Your task to perform on an android device: Clear the cart on costco. Add macbook pro 15 inch to the cart on costco Image 0: 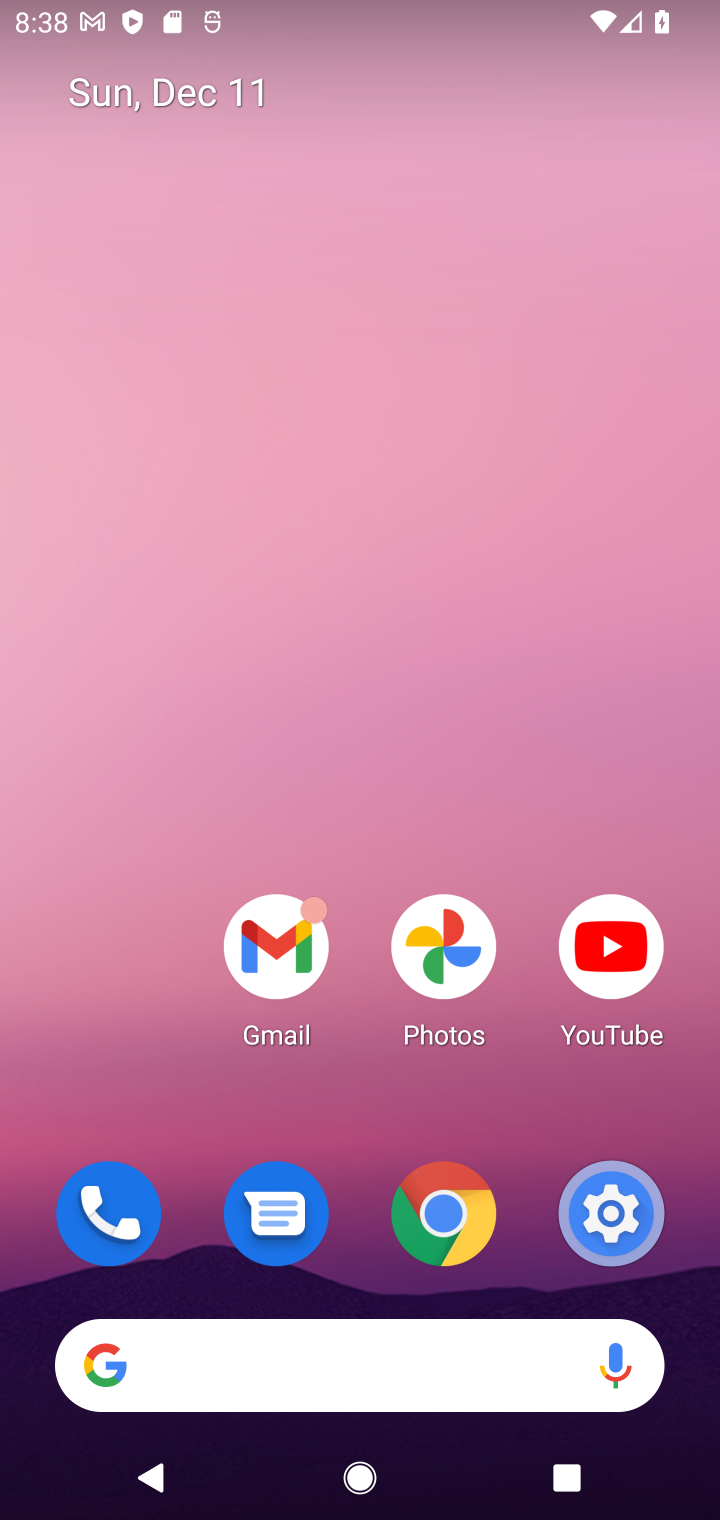
Step 0: click (407, 1352)
Your task to perform on an android device: Clear the cart on costco. Add macbook pro 15 inch to the cart on costco Image 1: 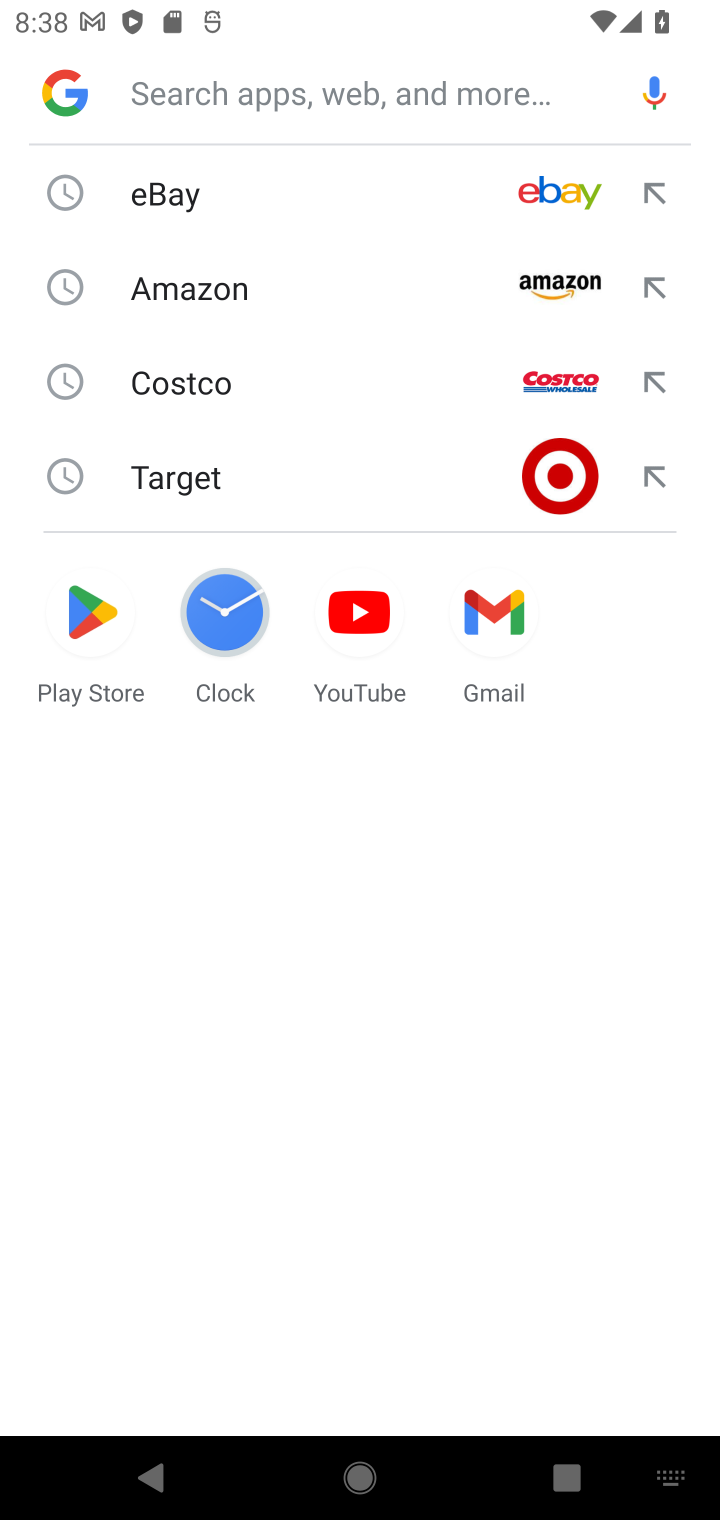
Step 1: type "costco.com"
Your task to perform on an android device: Clear the cart on costco. Add macbook pro 15 inch to the cart on costco Image 2: 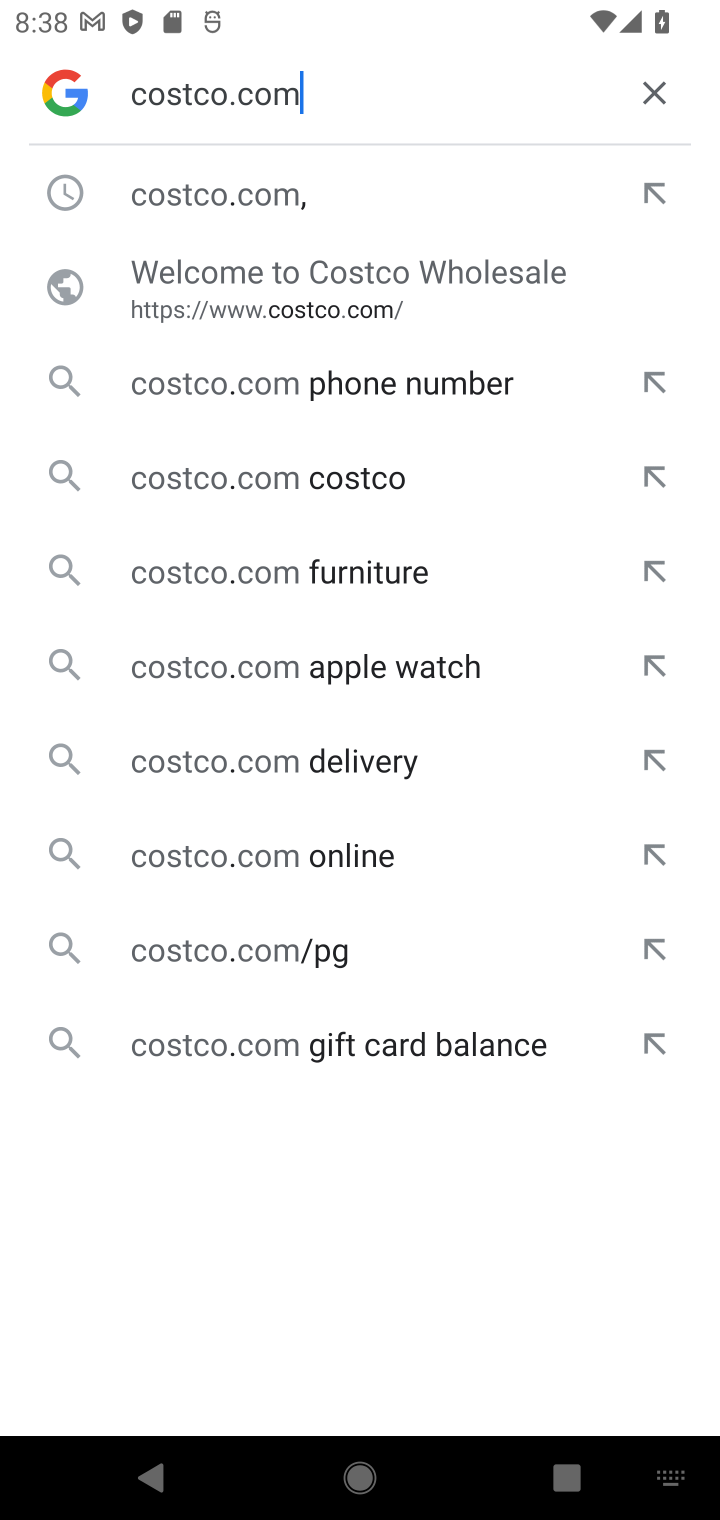
Step 2: click (321, 297)
Your task to perform on an android device: Clear the cart on costco. Add macbook pro 15 inch to the cart on costco Image 3: 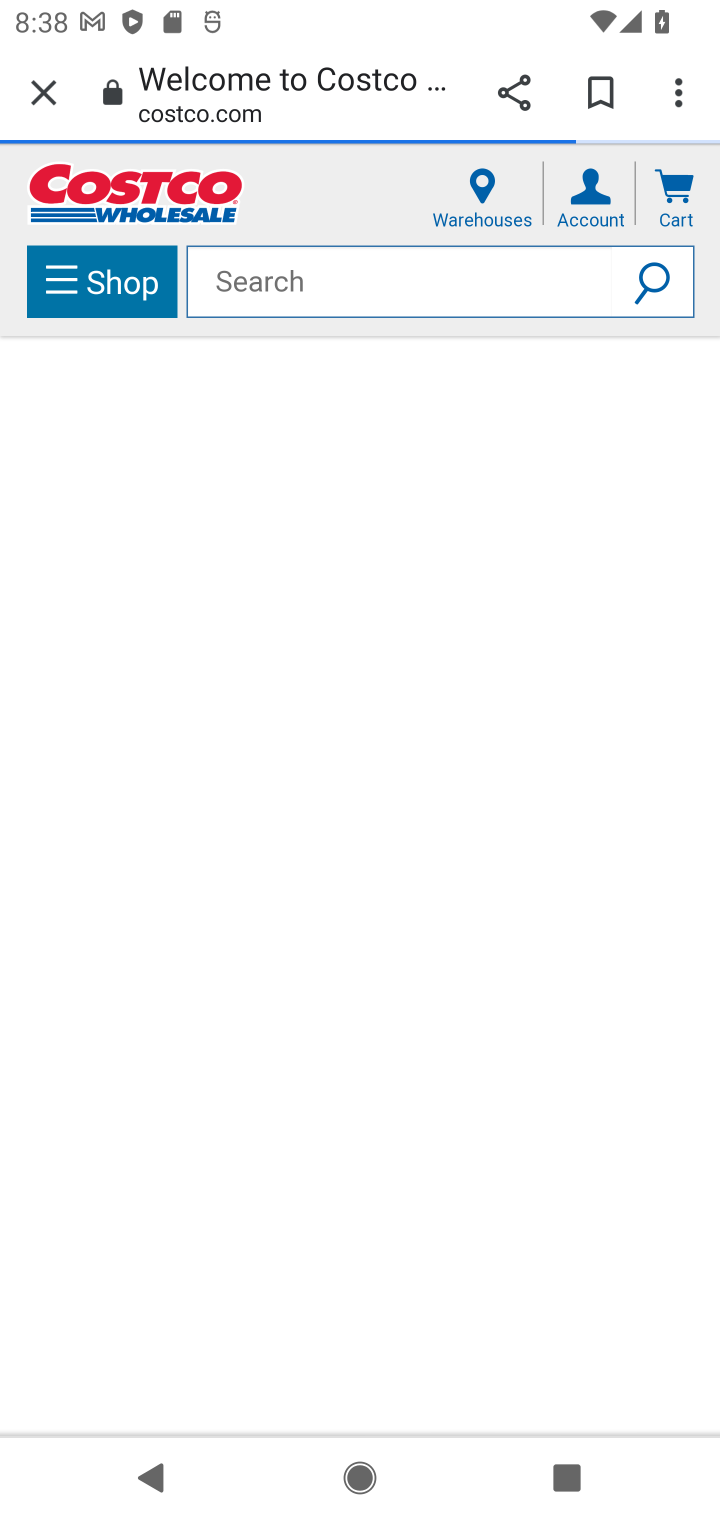
Step 3: click (321, 297)
Your task to perform on an android device: Clear the cart on costco. Add macbook pro 15 inch to the cart on costco Image 4: 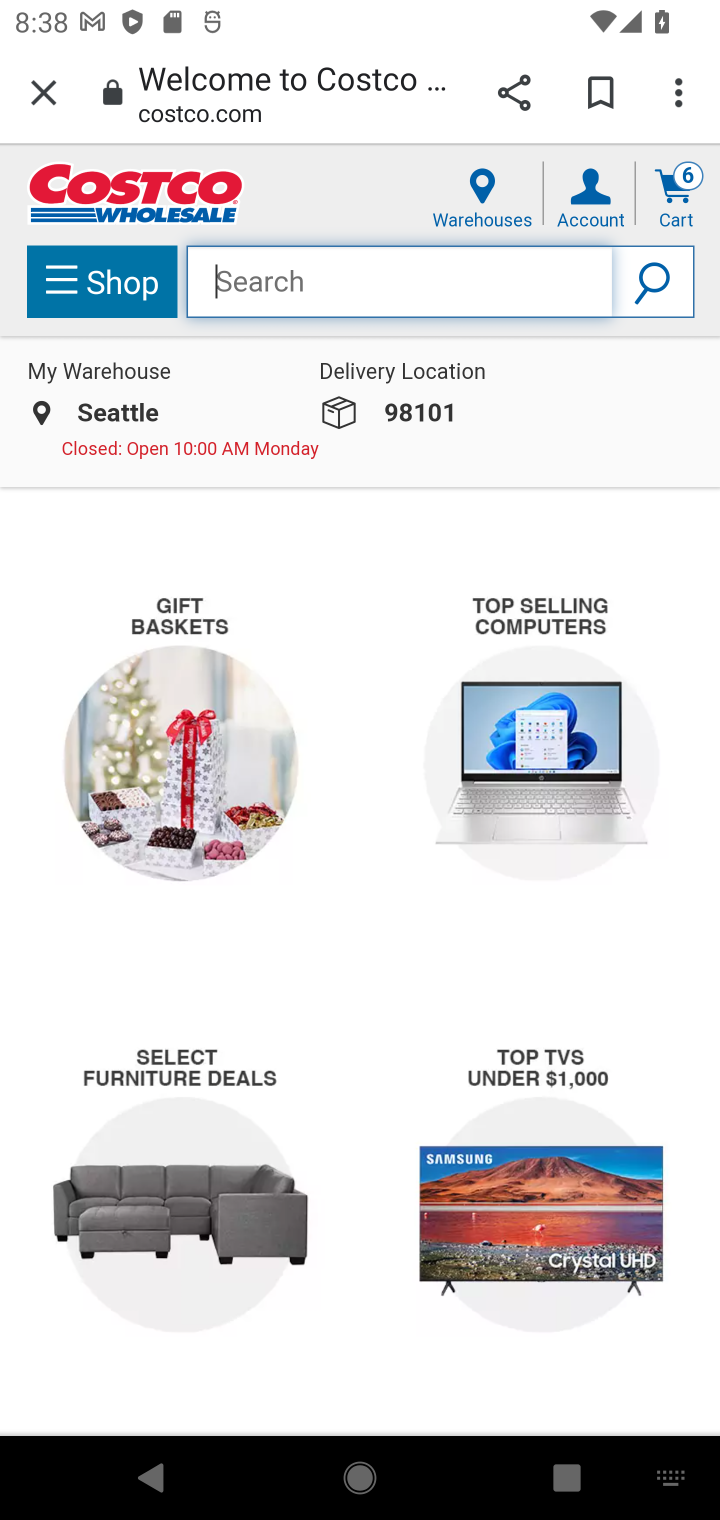
Step 4: type "macbook pro 15"
Your task to perform on an android device: Clear the cart on costco. Add macbook pro 15 inch to the cart on costco Image 5: 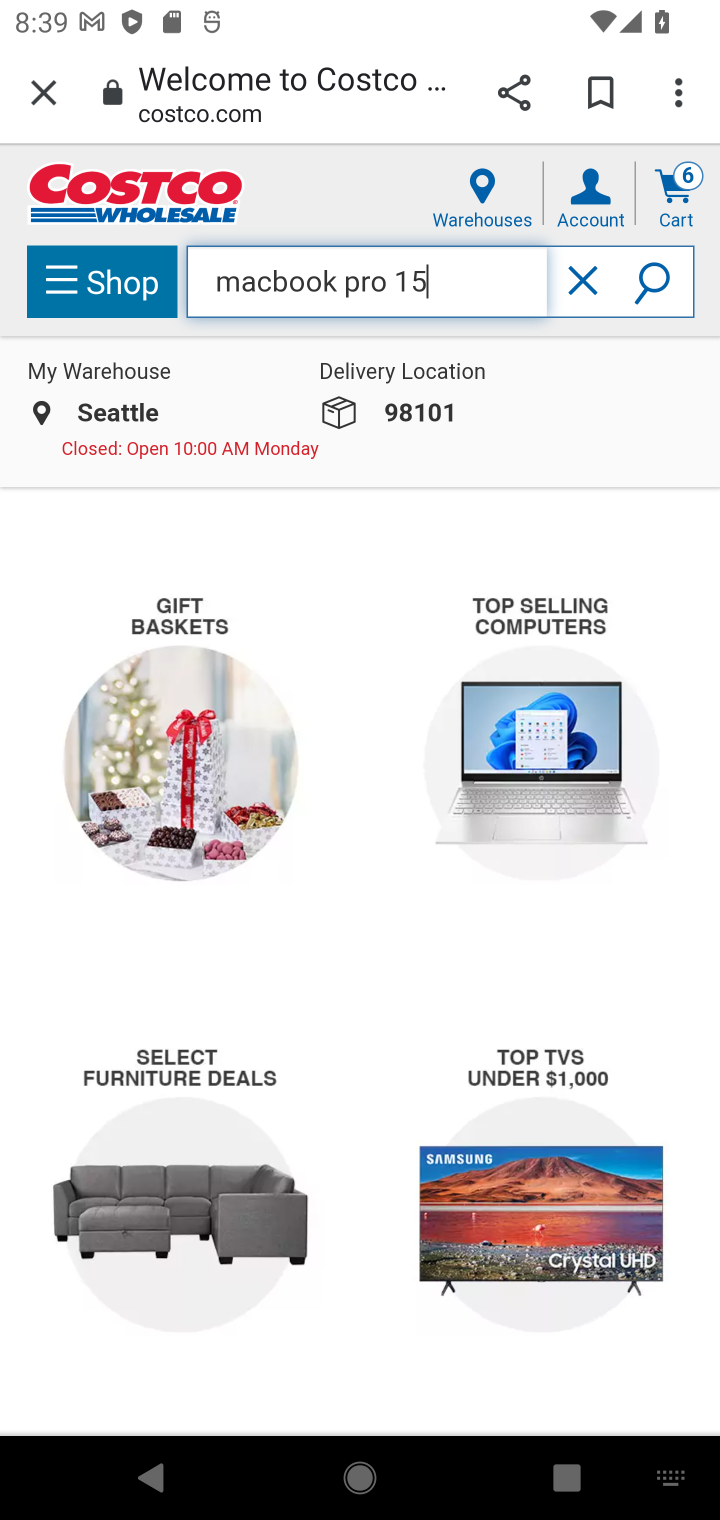
Step 5: click (652, 273)
Your task to perform on an android device: Clear the cart on costco. Add macbook pro 15 inch to the cart on costco Image 6: 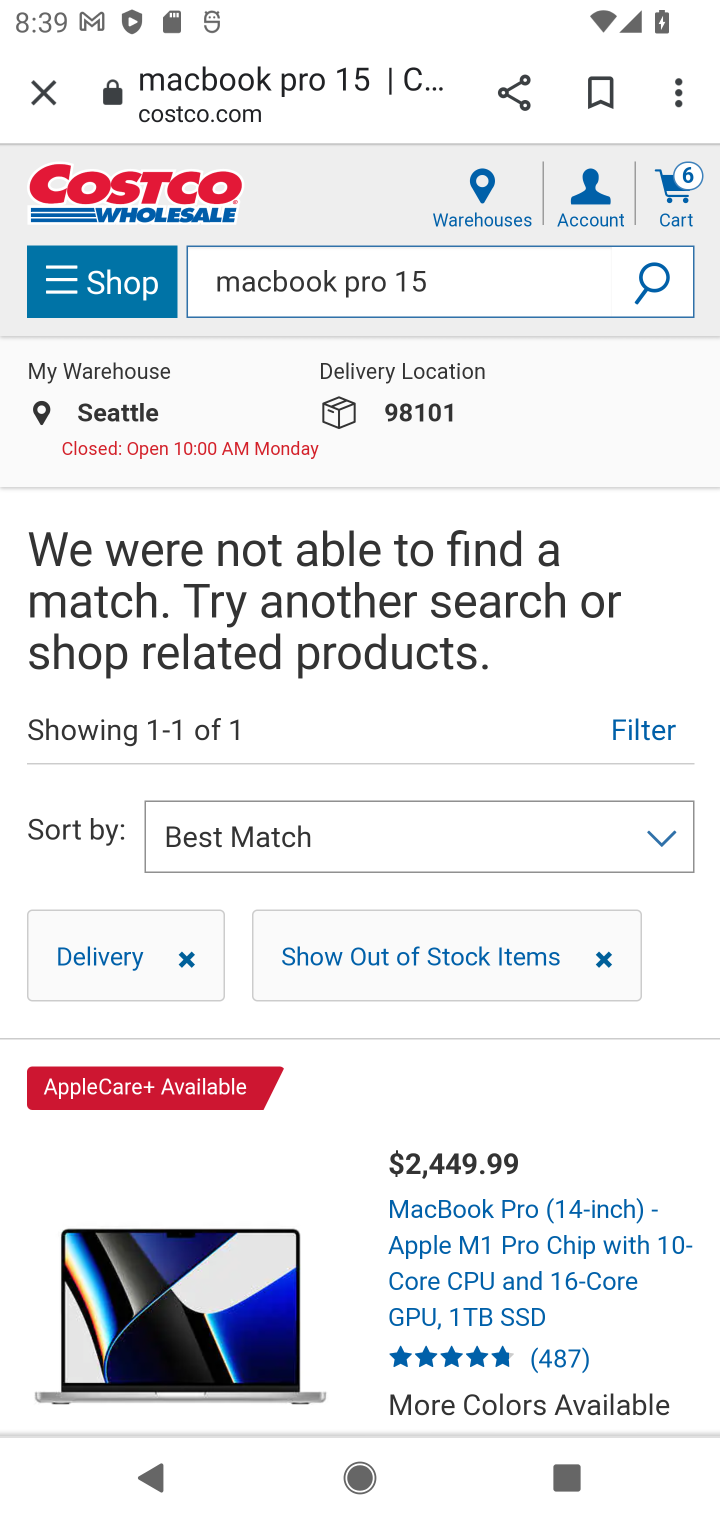
Step 6: click (496, 1242)
Your task to perform on an android device: Clear the cart on costco. Add macbook pro 15 inch to the cart on costco Image 7: 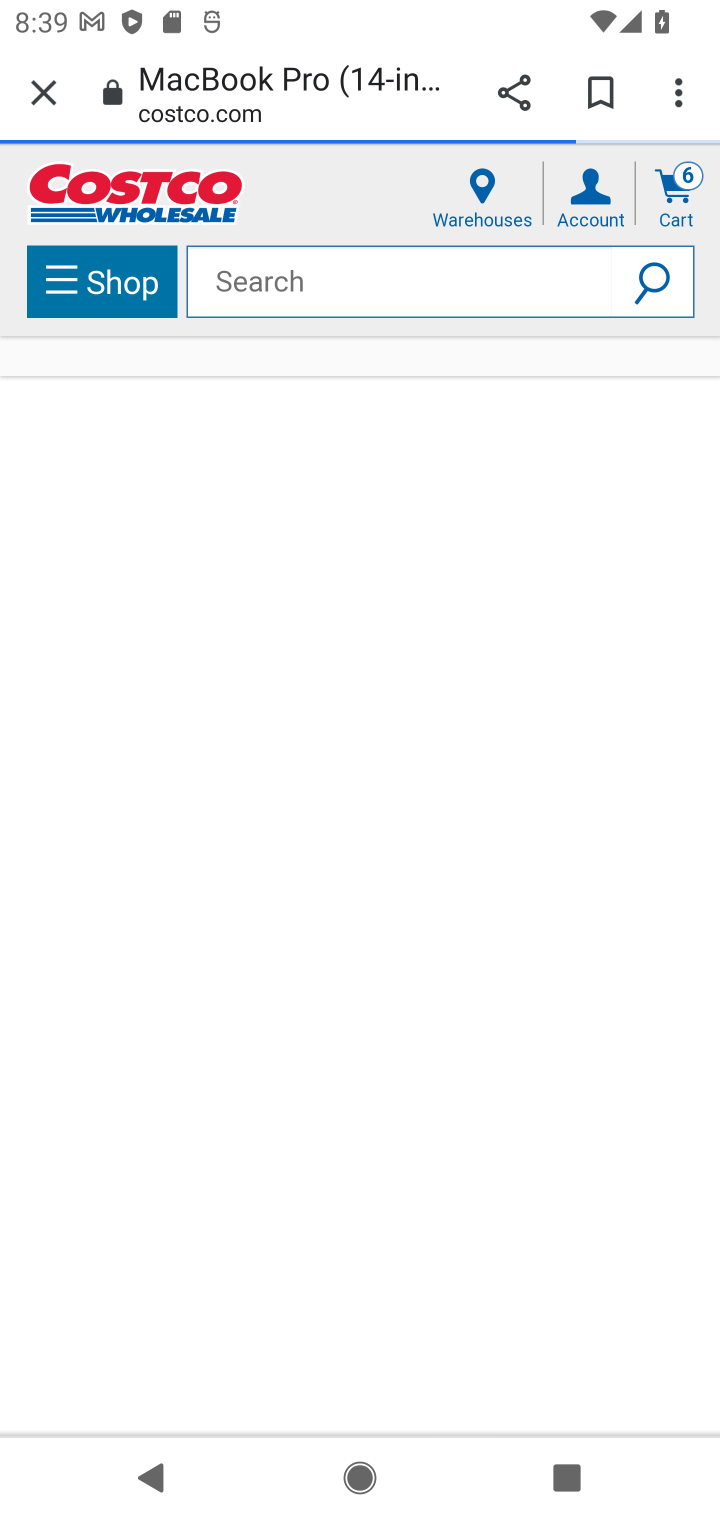
Step 7: task complete